Your task to perform on an android device: turn on priority inbox in the gmail app Image 0: 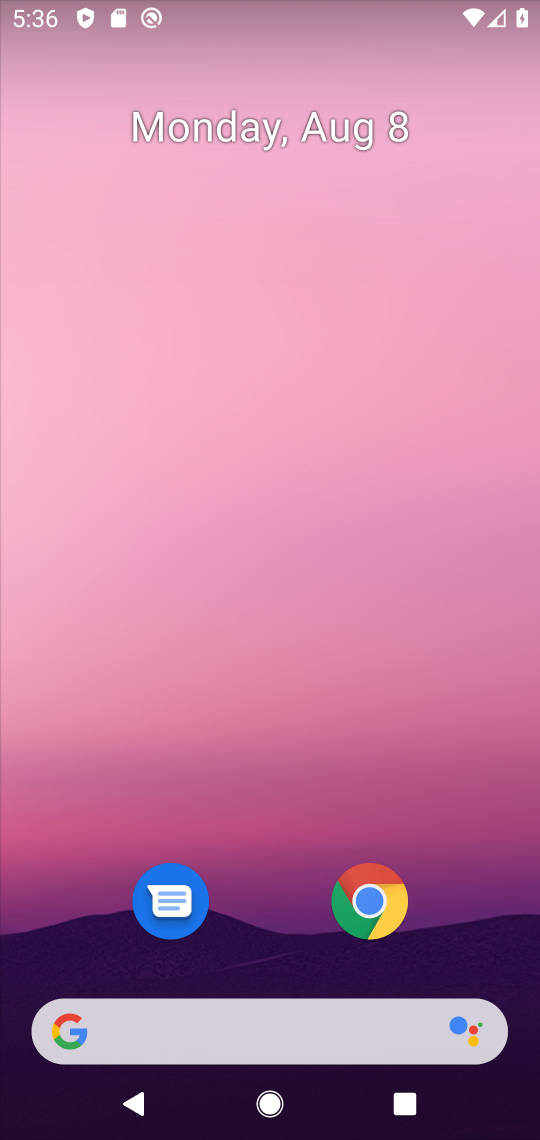
Step 0: drag from (507, 940) to (395, 240)
Your task to perform on an android device: turn on priority inbox in the gmail app Image 1: 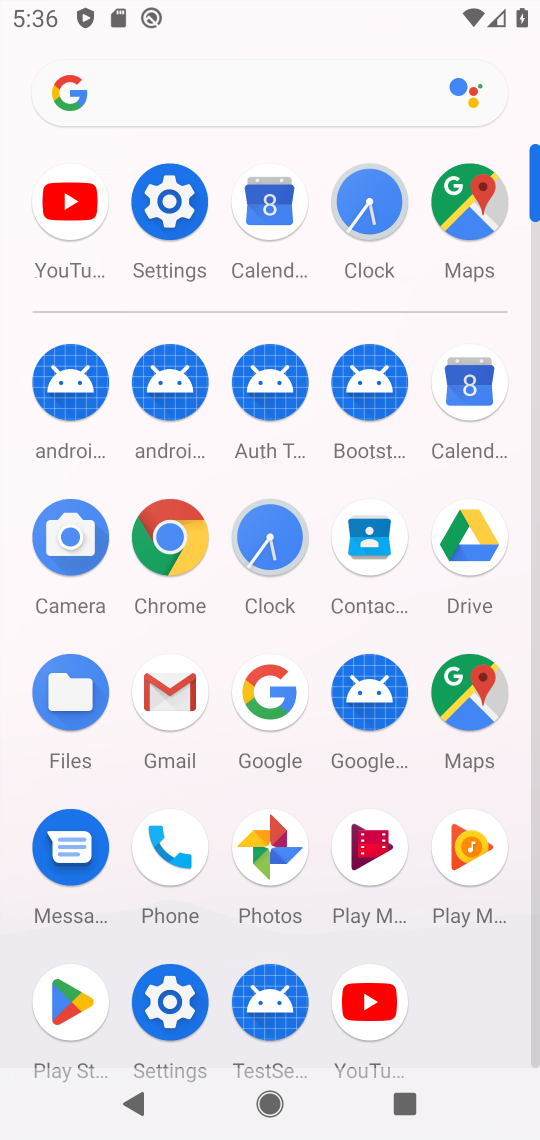
Step 1: click (179, 700)
Your task to perform on an android device: turn on priority inbox in the gmail app Image 2: 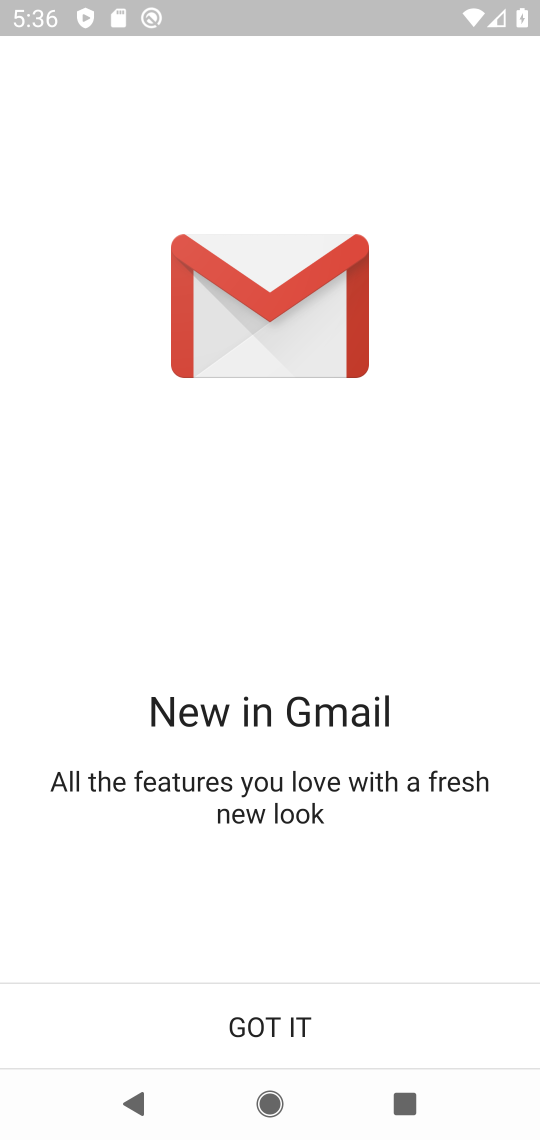
Step 2: click (317, 1033)
Your task to perform on an android device: turn on priority inbox in the gmail app Image 3: 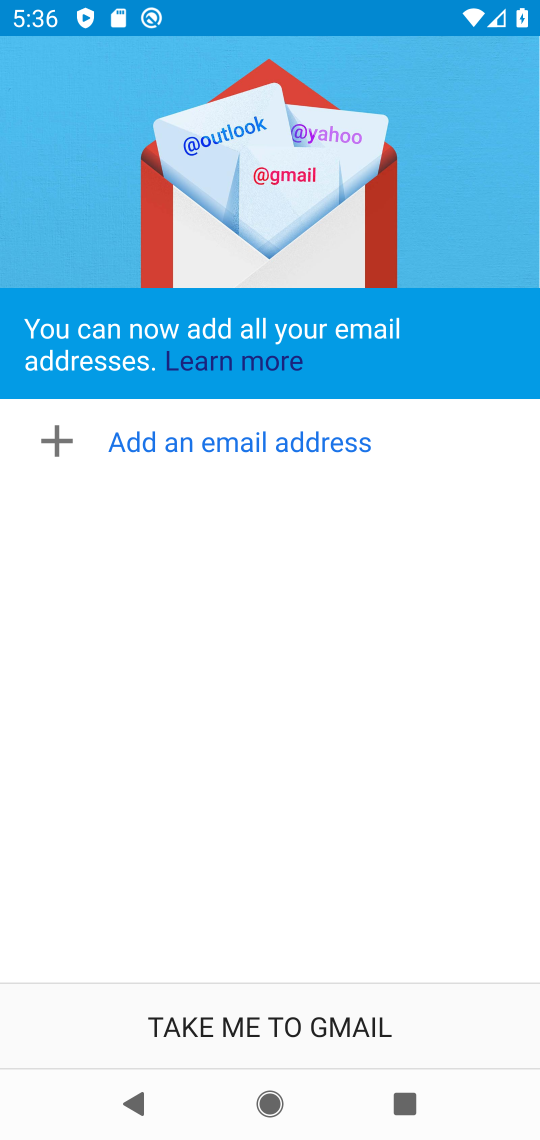
Step 3: click (249, 1028)
Your task to perform on an android device: turn on priority inbox in the gmail app Image 4: 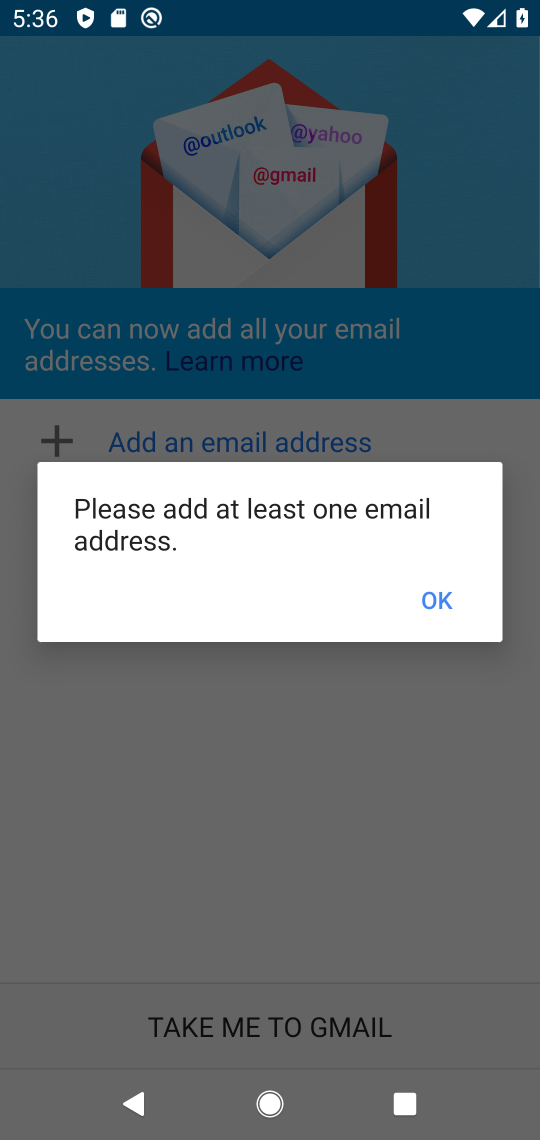
Step 4: task complete